Your task to perform on an android device: When is my next meeting? Image 0: 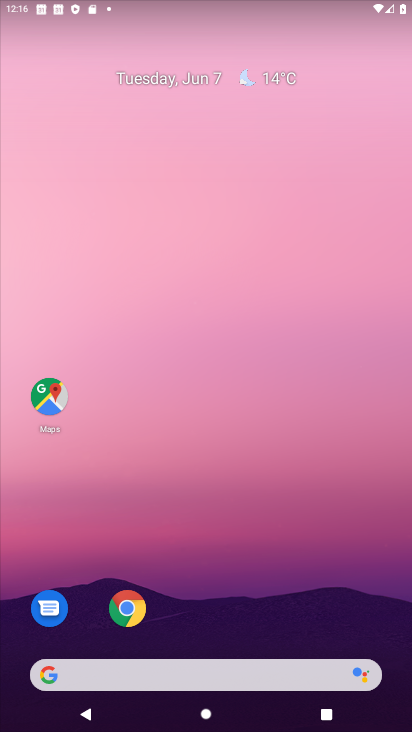
Step 0: drag from (166, 527) to (112, 19)
Your task to perform on an android device: When is my next meeting? Image 1: 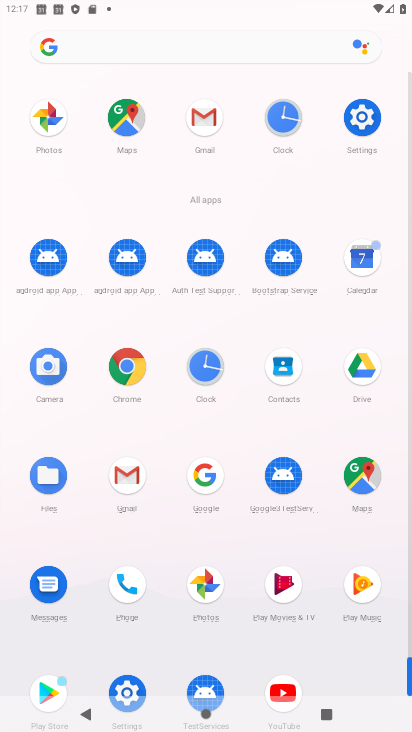
Step 1: click (358, 251)
Your task to perform on an android device: When is my next meeting? Image 2: 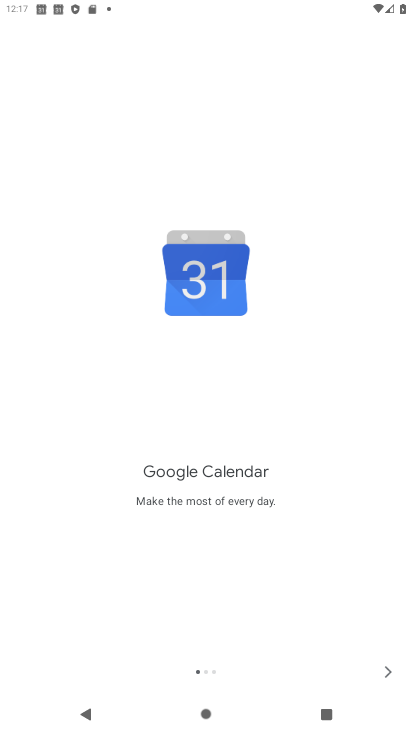
Step 2: click (387, 671)
Your task to perform on an android device: When is my next meeting? Image 3: 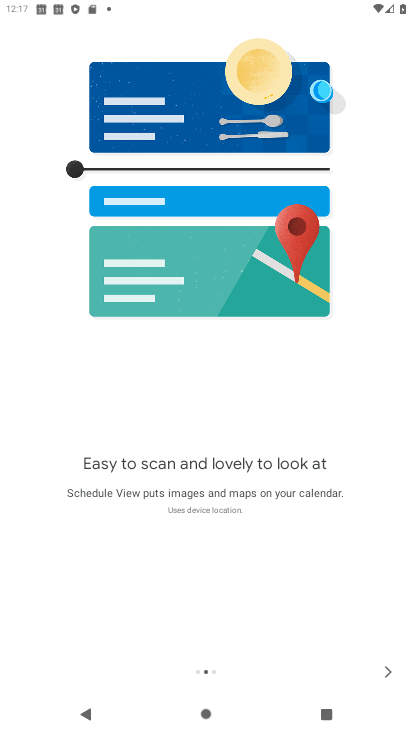
Step 3: click (387, 671)
Your task to perform on an android device: When is my next meeting? Image 4: 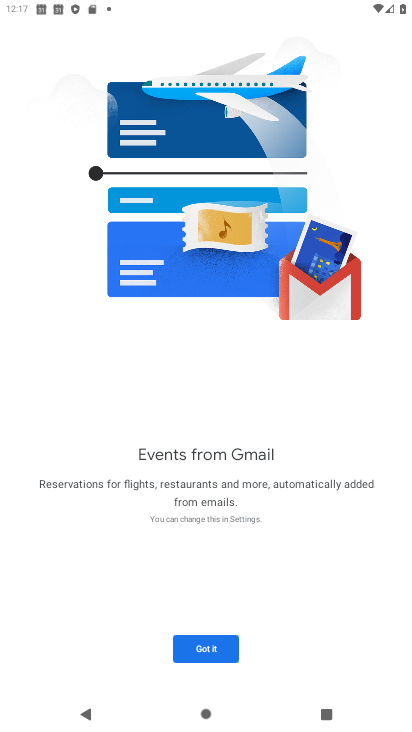
Step 4: click (211, 641)
Your task to perform on an android device: When is my next meeting? Image 5: 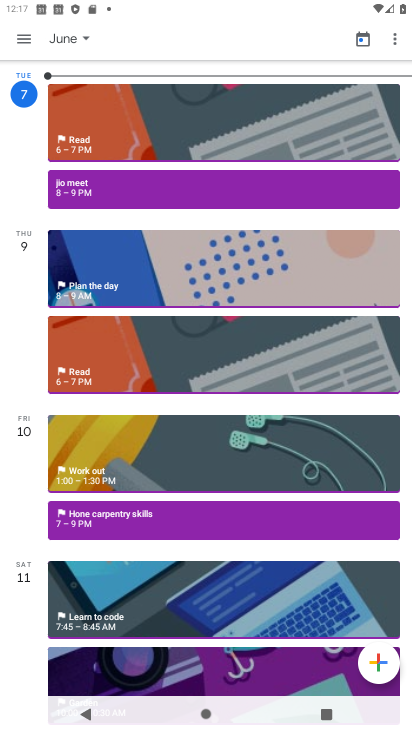
Step 5: click (21, 32)
Your task to perform on an android device: When is my next meeting? Image 6: 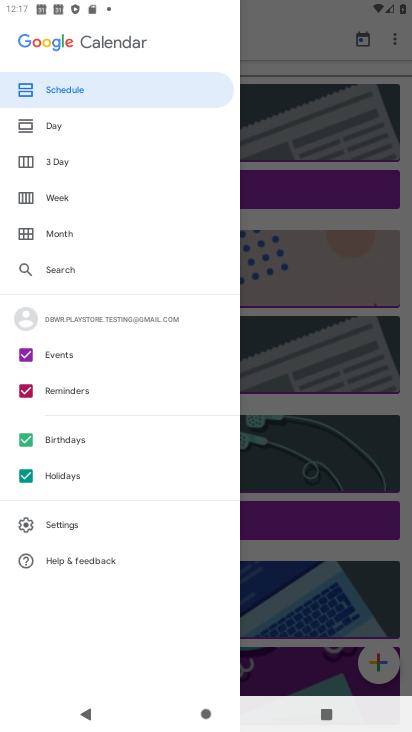
Step 6: drag from (123, 128) to (123, 456)
Your task to perform on an android device: When is my next meeting? Image 7: 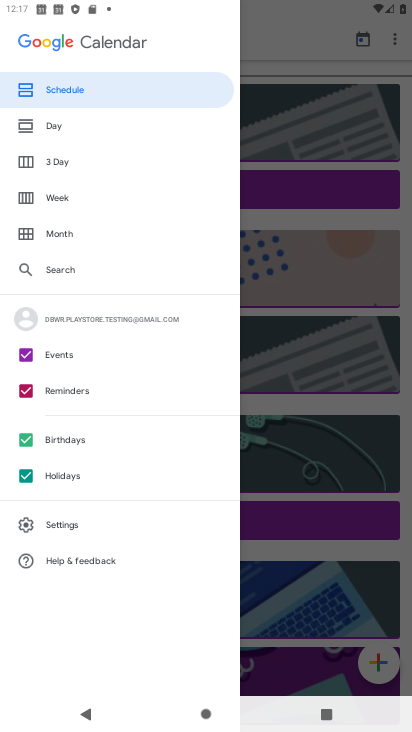
Step 7: click (92, 93)
Your task to perform on an android device: When is my next meeting? Image 8: 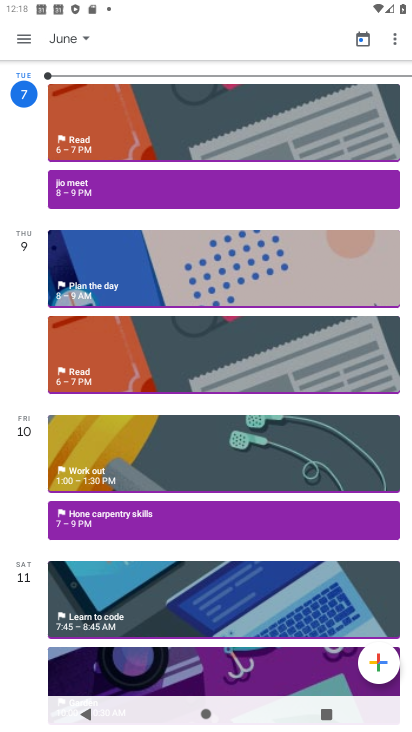
Step 8: task complete